Your task to perform on an android device: turn off priority inbox in the gmail app Image 0: 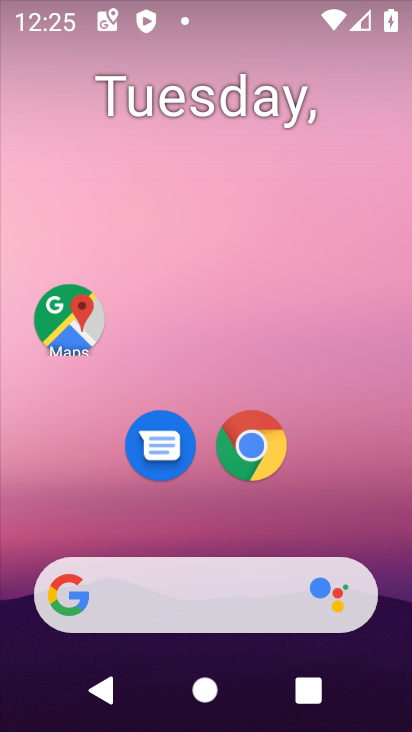
Step 0: drag from (349, 528) to (380, 44)
Your task to perform on an android device: turn off priority inbox in the gmail app Image 1: 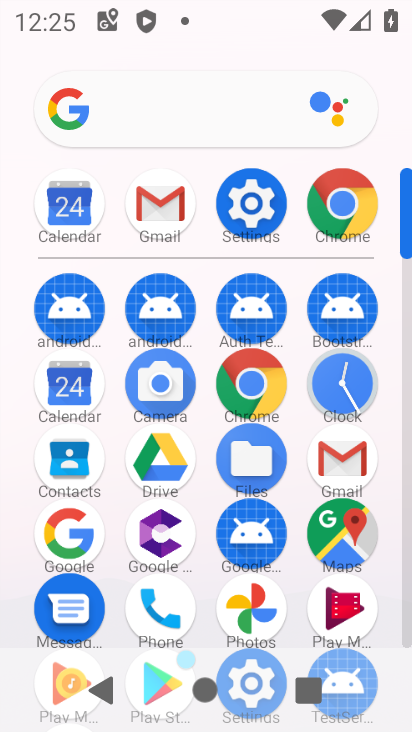
Step 1: click (165, 196)
Your task to perform on an android device: turn off priority inbox in the gmail app Image 2: 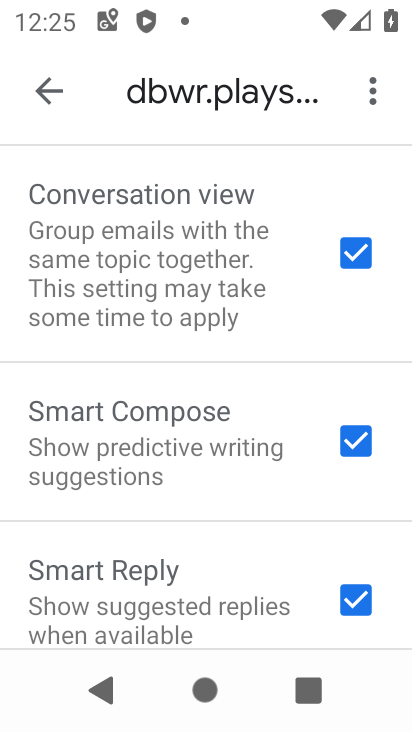
Step 2: drag from (116, 588) to (206, 147)
Your task to perform on an android device: turn off priority inbox in the gmail app Image 3: 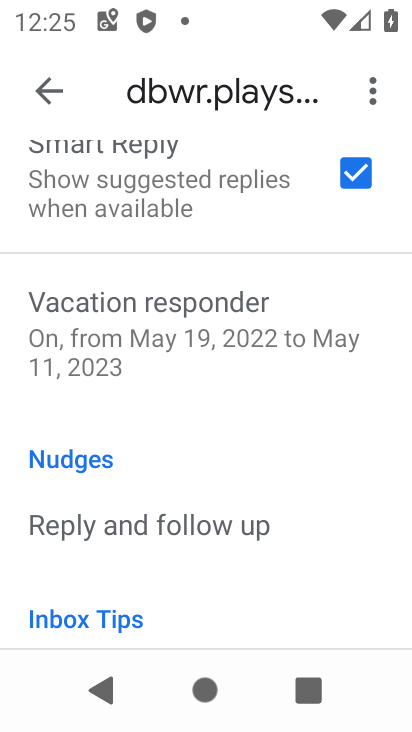
Step 3: drag from (139, 584) to (242, 94)
Your task to perform on an android device: turn off priority inbox in the gmail app Image 4: 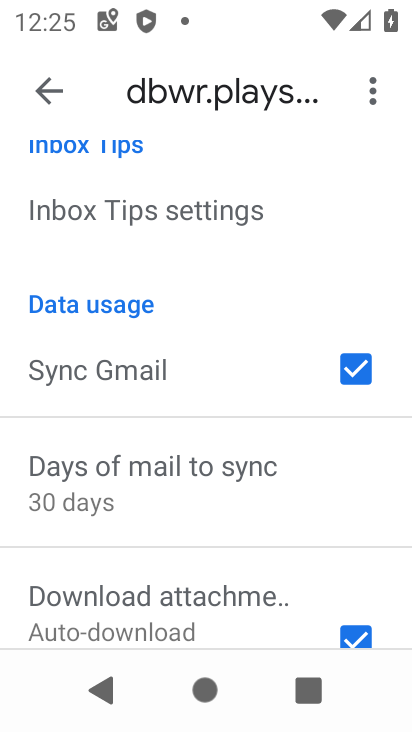
Step 4: drag from (155, 596) to (197, 167)
Your task to perform on an android device: turn off priority inbox in the gmail app Image 5: 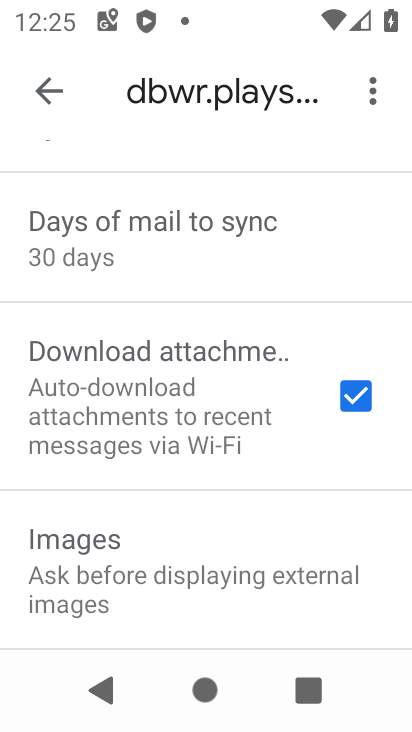
Step 5: drag from (197, 178) to (116, 577)
Your task to perform on an android device: turn off priority inbox in the gmail app Image 6: 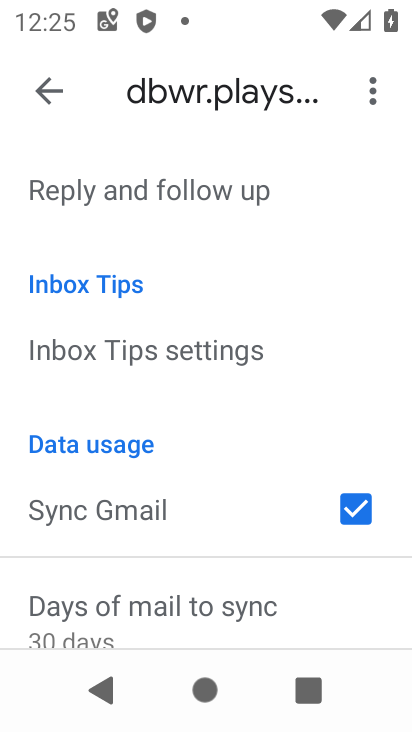
Step 6: drag from (131, 192) to (90, 642)
Your task to perform on an android device: turn off priority inbox in the gmail app Image 7: 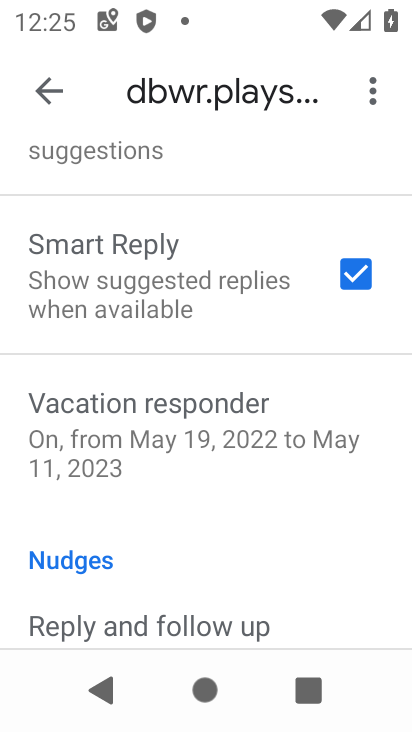
Step 7: drag from (121, 231) to (89, 615)
Your task to perform on an android device: turn off priority inbox in the gmail app Image 8: 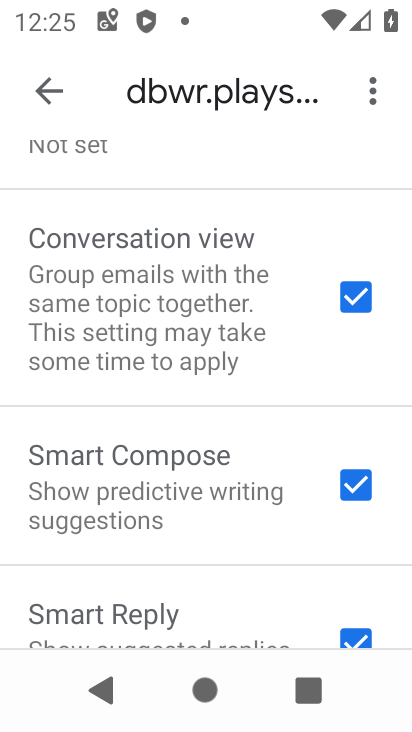
Step 8: drag from (98, 271) to (87, 590)
Your task to perform on an android device: turn off priority inbox in the gmail app Image 9: 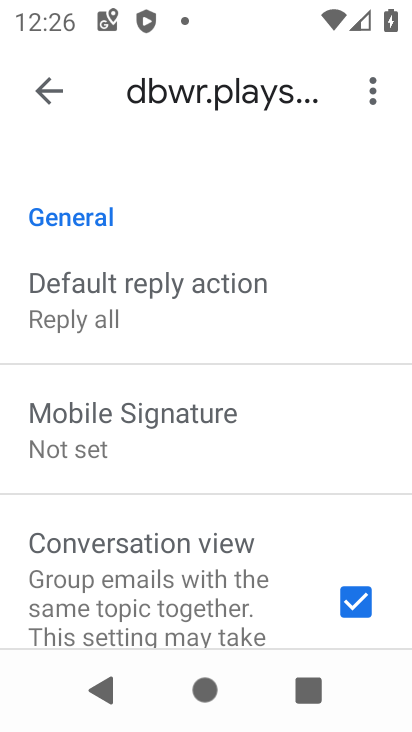
Step 9: drag from (136, 282) to (108, 638)
Your task to perform on an android device: turn off priority inbox in the gmail app Image 10: 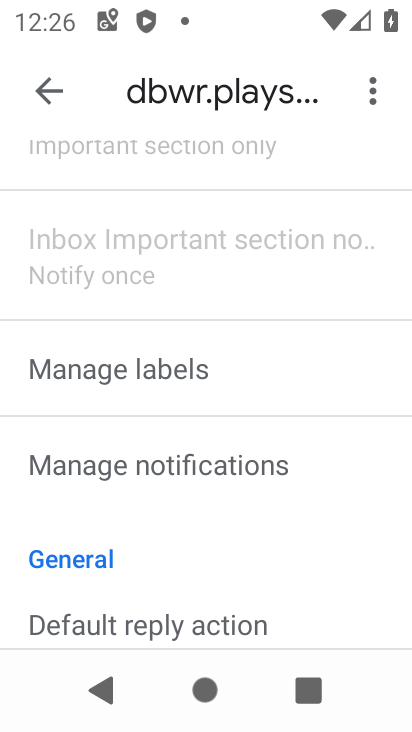
Step 10: drag from (201, 272) to (148, 659)
Your task to perform on an android device: turn off priority inbox in the gmail app Image 11: 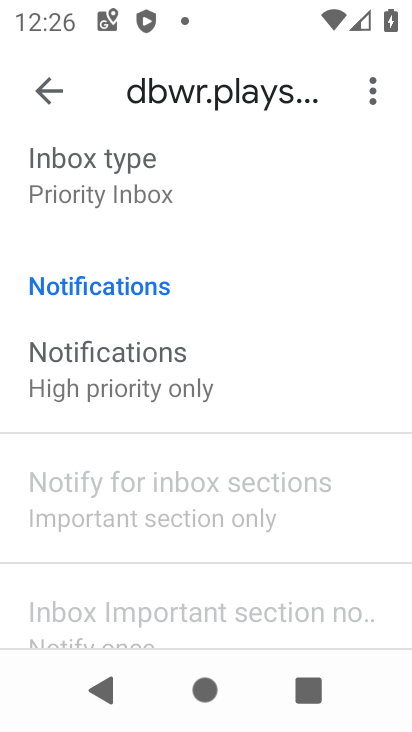
Step 11: click (165, 368)
Your task to perform on an android device: turn off priority inbox in the gmail app Image 12: 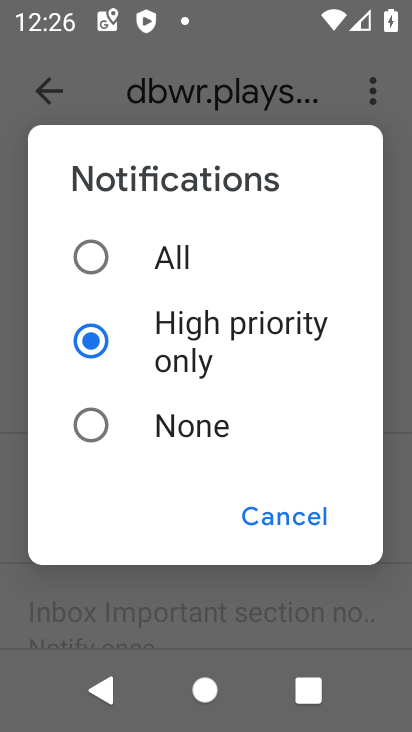
Step 12: click (254, 526)
Your task to perform on an android device: turn off priority inbox in the gmail app Image 13: 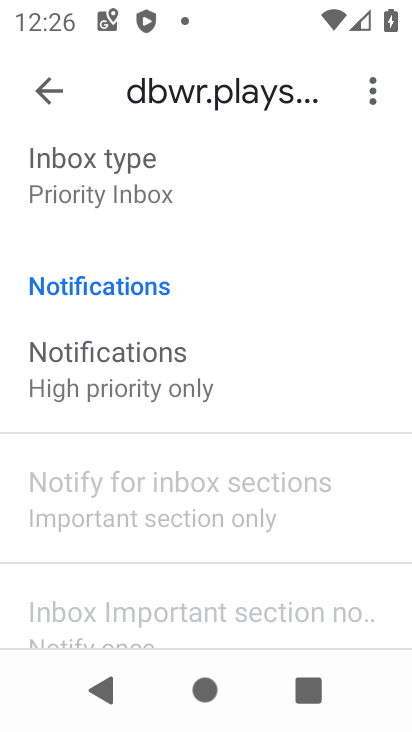
Step 13: click (154, 209)
Your task to perform on an android device: turn off priority inbox in the gmail app Image 14: 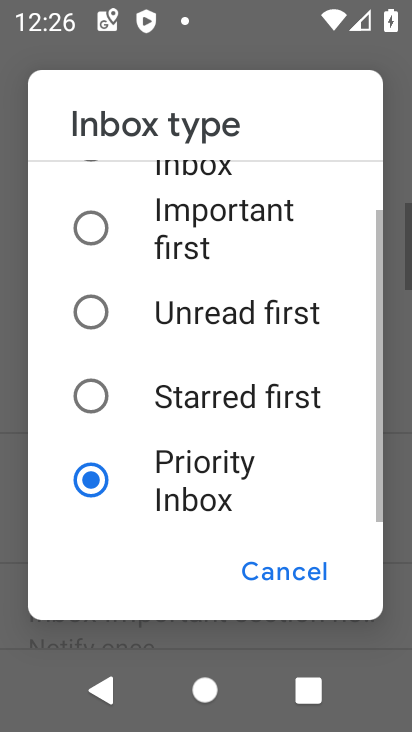
Step 14: drag from (228, 267) to (177, 566)
Your task to perform on an android device: turn off priority inbox in the gmail app Image 15: 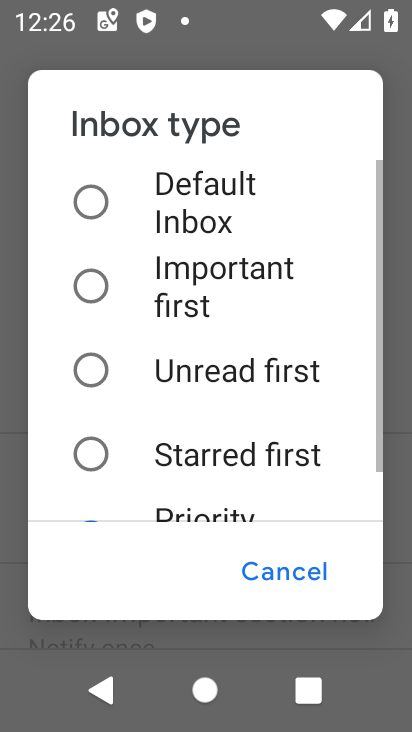
Step 15: click (173, 196)
Your task to perform on an android device: turn off priority inbox in the gmail app Image 16: 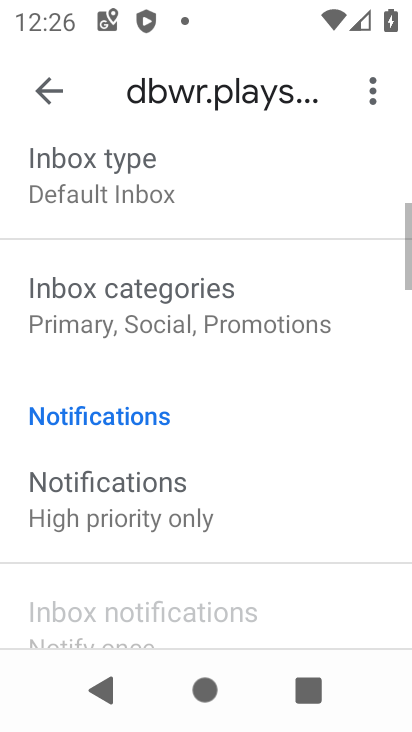
Step 16: task complete